Your task to perform on an android device: turn on sleep mode Image 0: 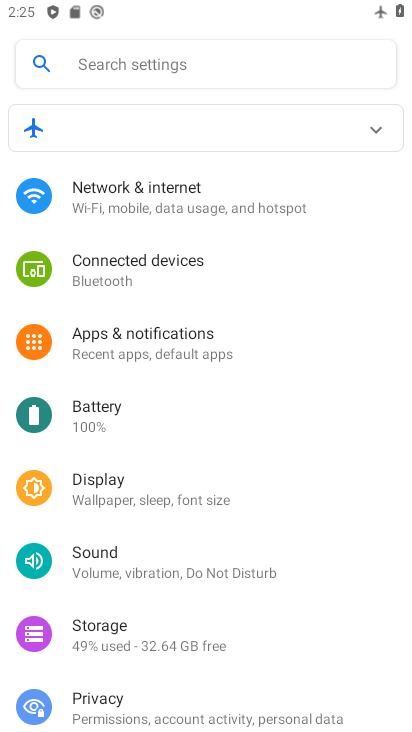
Step 0: drag from (164, 683) to (180, 271)
Your task to perform on an android device: turn on sleep mode Image 1: 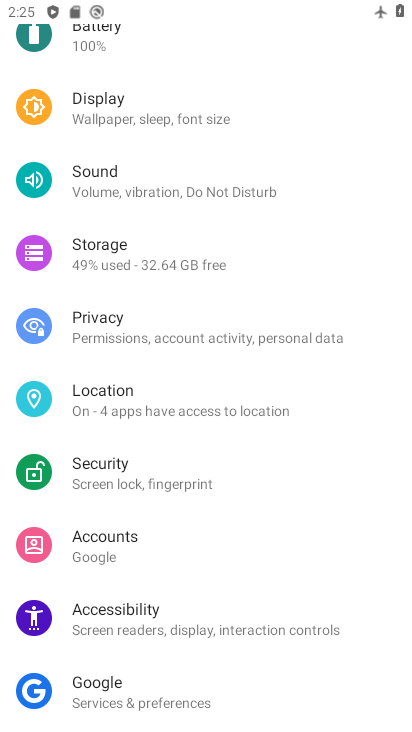
Step 1: drag from (212, 177) to (208, 540)
Your task to perform on an android device: turn on sleep mode Image 2: 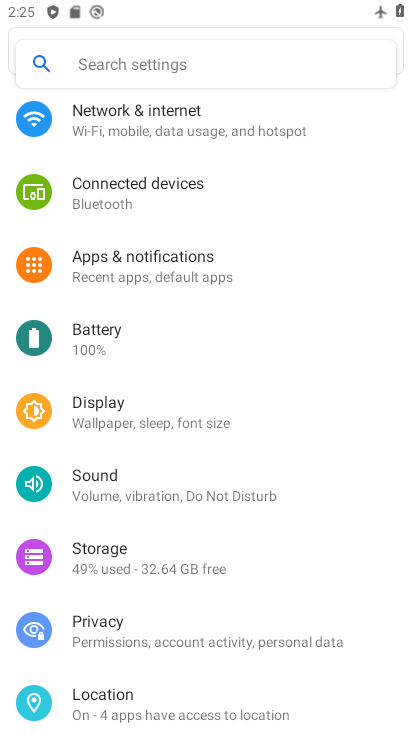
Step 2: drag from (215, 178) to (201, 492)
Your task to perform on an android device: turn on sleep mode Image 3: 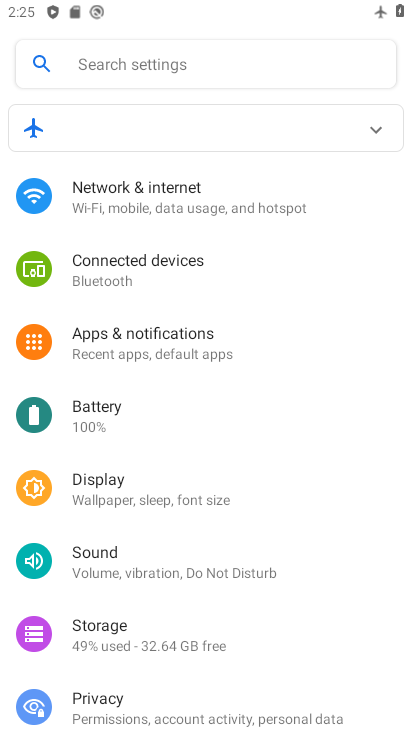
Step 3: click (186, 501)
Your task to perform on an android device: turn on sleep mode Image 4: 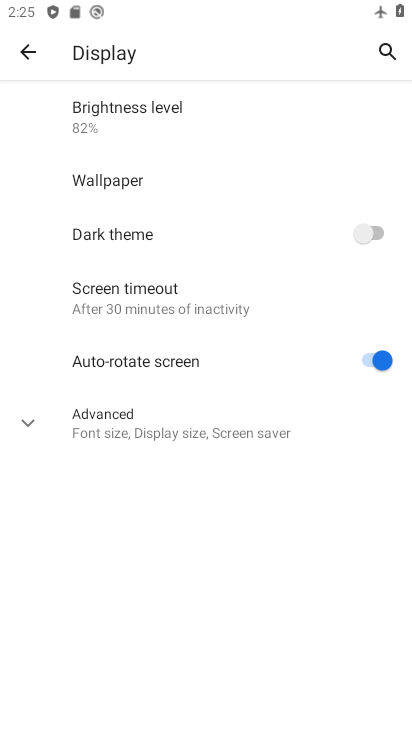
Step 4: click (27, 46)
Your task to perform on an android device: turn on sleep mode Image 5: 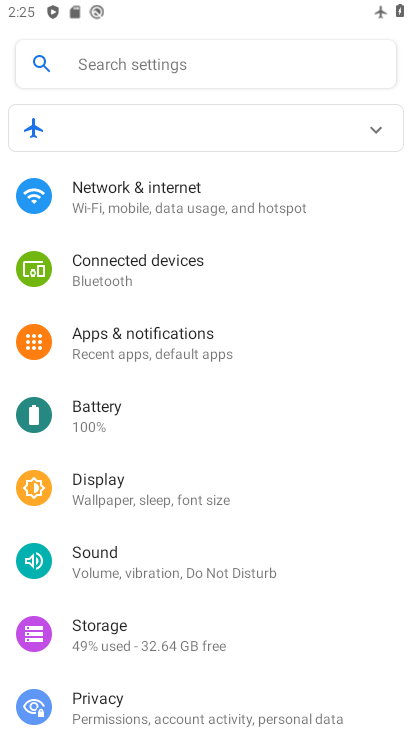
Step 5: task complete